Your task to perform on an android device: Search for Italian restaurants on Maps Image 0: 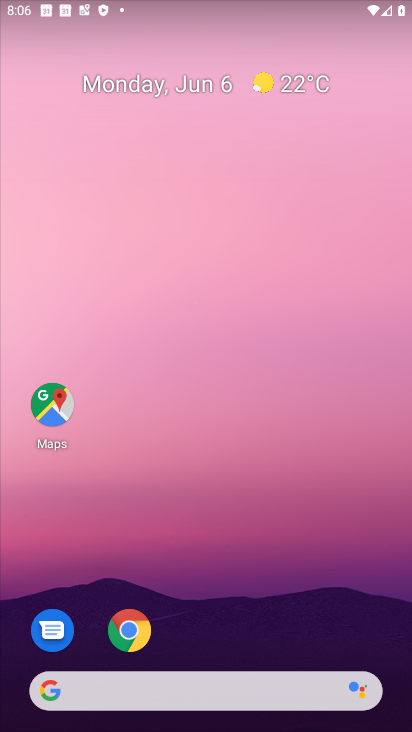
Step 0: click (47, 387)
Your task to perform on an android device: Search for Italian restaurants on Maps Image 1: 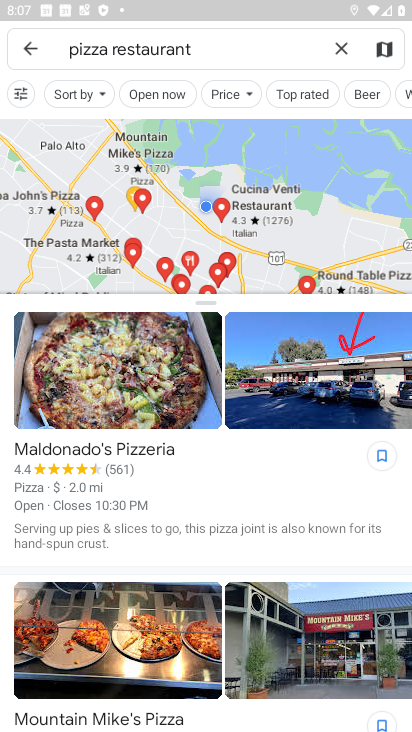
Step 1: click (337, 50)
Your task to perform on an android device: Search for Italian restaurants on Maps Image 2: 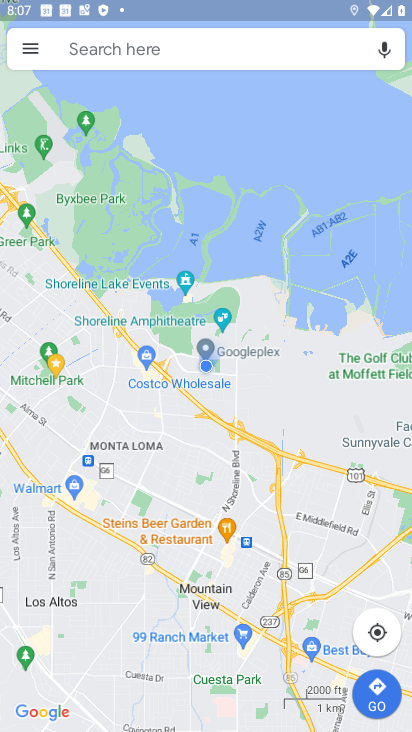
Step 2: click (122, 46)
Your task to perform on an android device: Search for Italian restaurants on Maps Image 3: 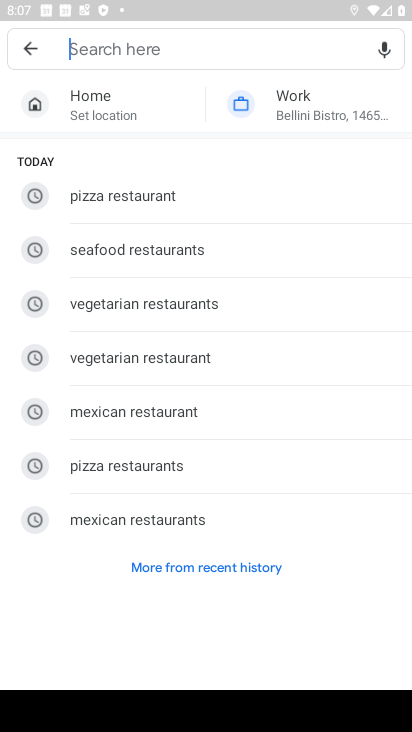
Step 3: type "italian restaurants"
Your task to perform on an android device: Search for Italian restaurants on Maps Image 4: 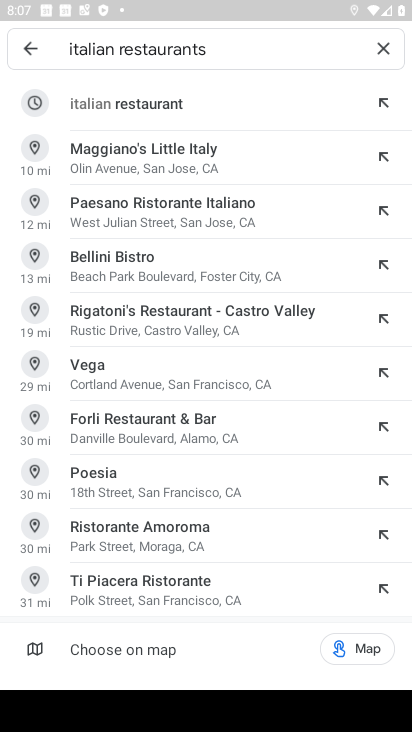
Step 4: click (201, 102)
Your task to perform on an android device: Search for Italian restaurants on Maps Image 5: 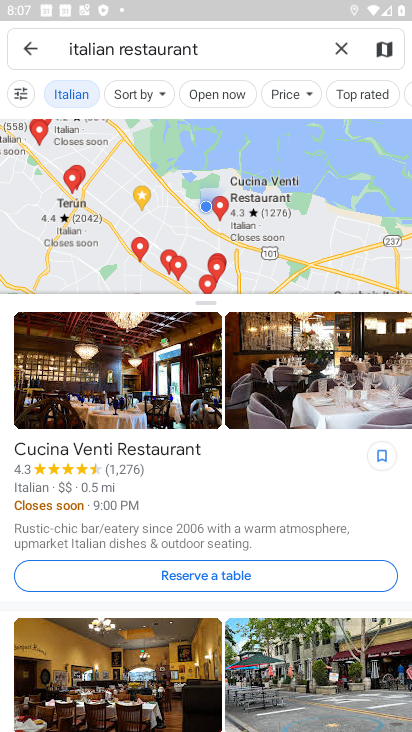
Step 5: task complete